Your task to perform on an android device: open a bookmark in the chrome app Image 0: 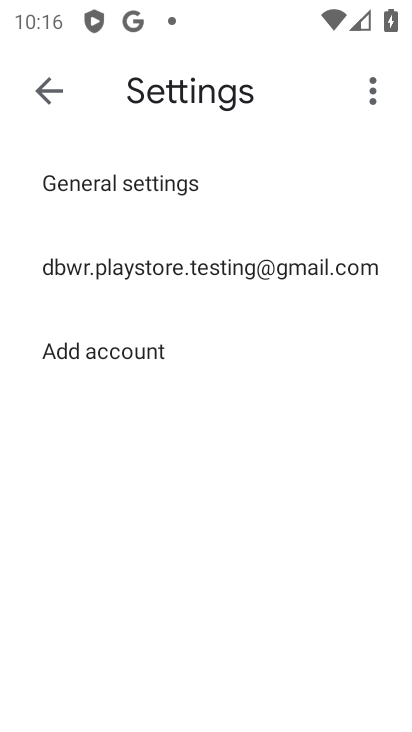
Step 0: press home button
Your task to perform on an android device: open a bookmark in the chrome app Image 1: 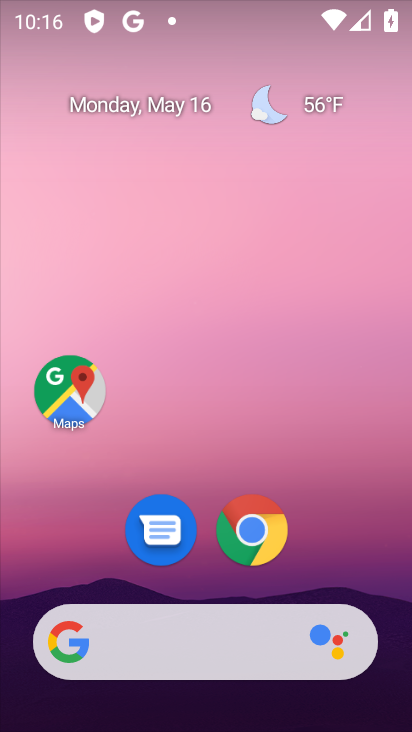
Step 1: drag from (351, 564) to (346, 143)
Your task to perform on an android device: open a bookmark in the chrome app Image 2: 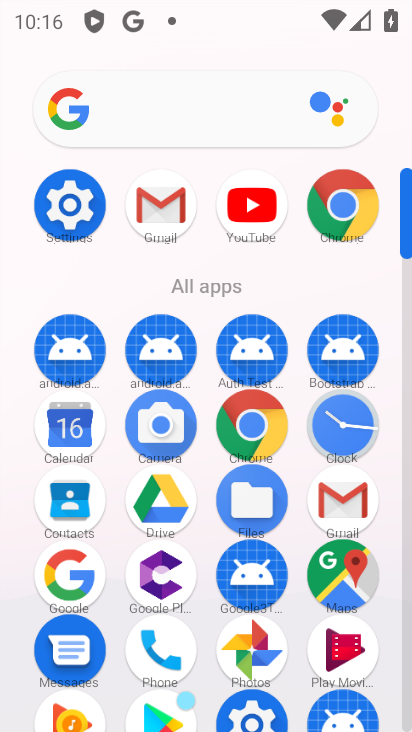
Step 2: click (259, 436)
Your task to perform on an android device: open a bookmark in the chrome app Image 3: 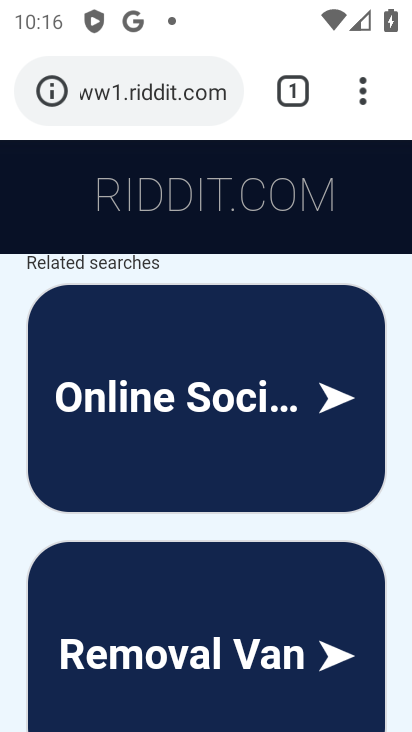
Step 3: click (365, 98)
Your task to perform on an android device: open a bookmark in the chrome app Image 4: 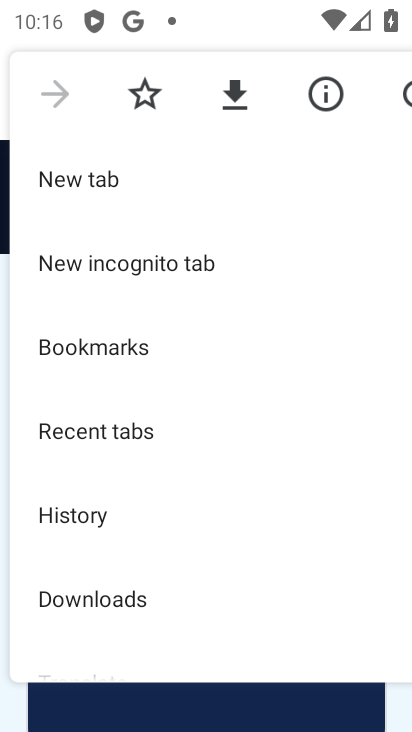
Step 4: drag from (324, 573) to (338, 430)
Your task to perform on an android device: open a bookmark in the chrome app Image 5: 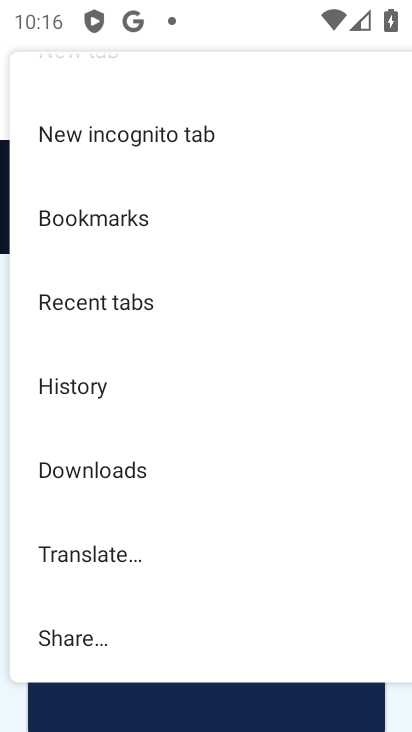
Step 5: drag from (319, 593) to (311, 400)
Your task to perform on an android device: open a bookmark in the chrome app Image 6: 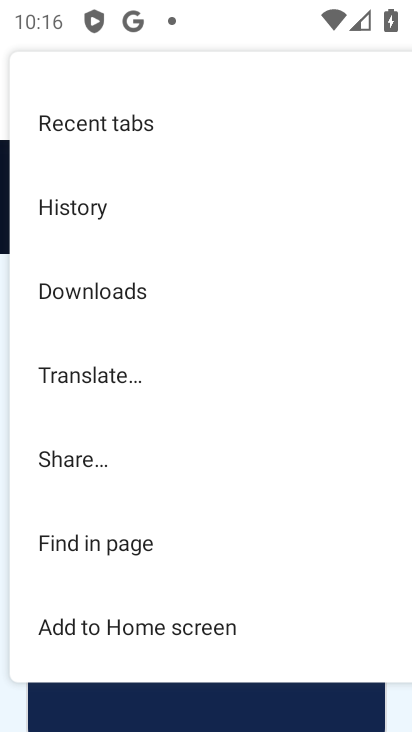
Step 6: drag from (288, 581) to (290, 386)
Your task to perform on an android device: open a bookmark in the chrome app Image 7: 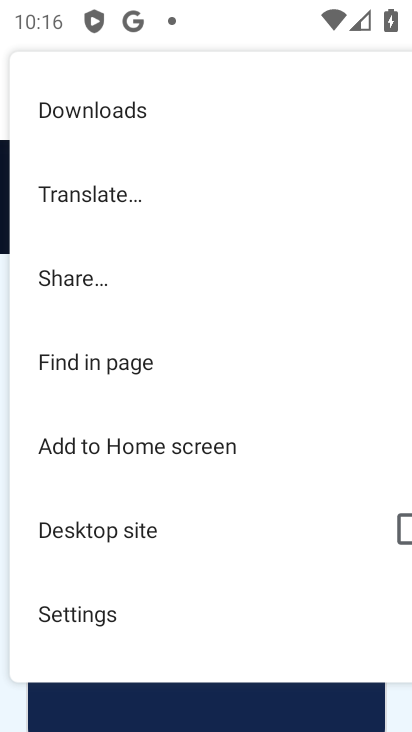
Step 7: drag from (281, 609) to (293, 416)
Your task to perform on an android device: open a bookmark in the chrome app Image 8: 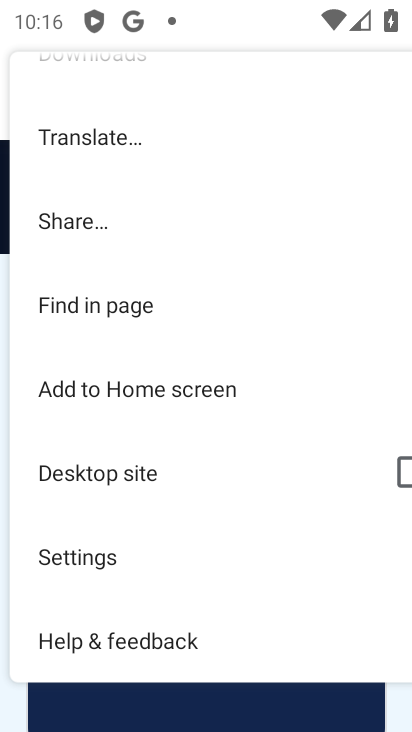
Step 8: drag from (323, 326) to (336, 444)
Your task to perform on an android device: open a bookmark in the chrome app Image 9: 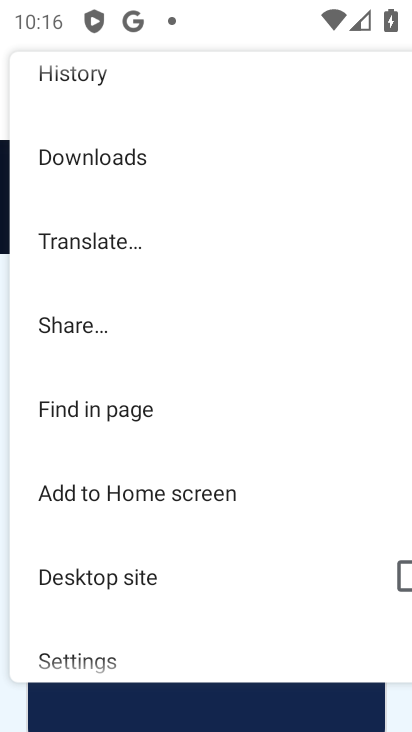
Step 9: drag from (327, 287) to (318, 453)
Your task to perform on an android device: open a bookmark in the chrome app Image 10: 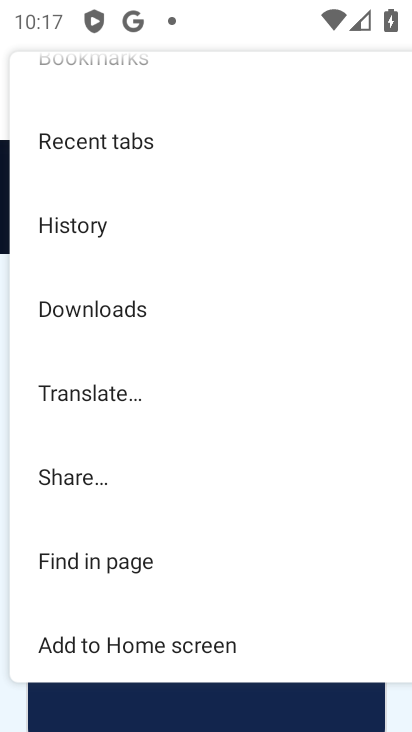
Step 10: drag from (296, 324) to (301, 433)
Your task to perform on an android device: open a bookmark in the chrome app Image 11: 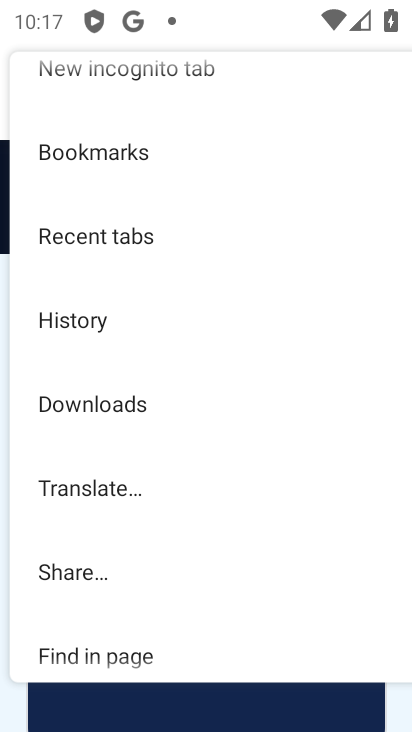
Step 11: drag from (272, 271) to (287, 419)
Your task to perform on an android device: open a bookmark in the chrome app Image 12: 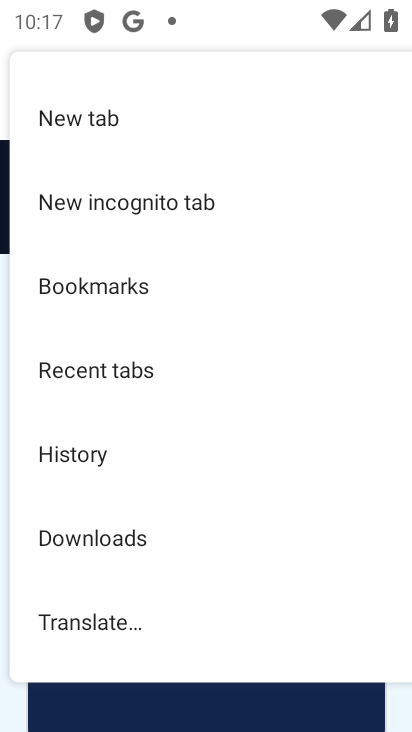
Step 12: click (167, 287)
Your task to perform on an android device: open a bookmark in the chrome app Image 13: 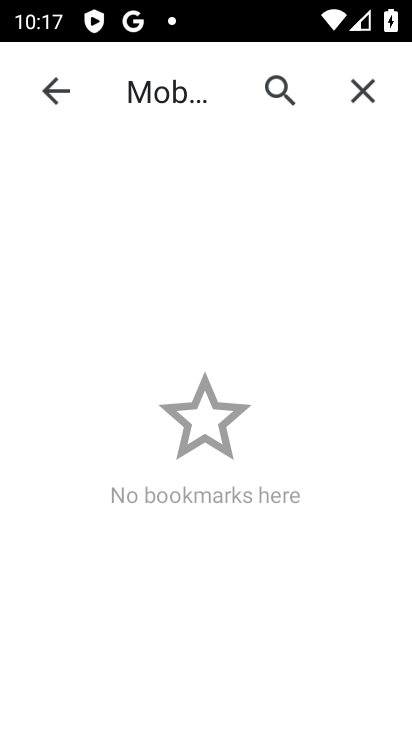
Step 13: task complete